Your task to perform on an android device: Open display settings Image 0: 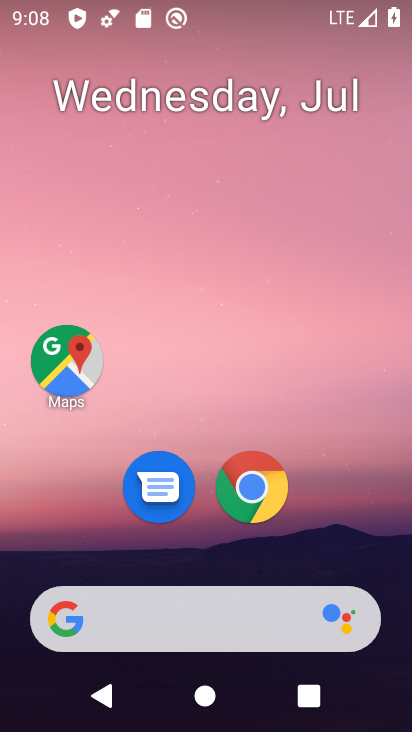
Step 0: click (402, 626)
Your task to perform on an android device: Open display settings Image 1: 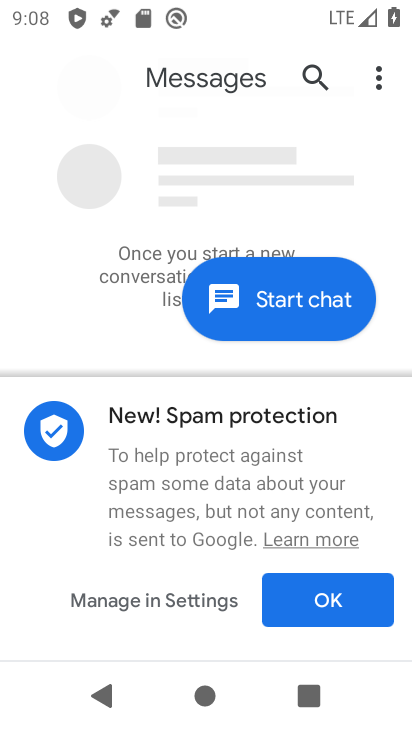
Step 1: press home button
Your task to perform on an android device: Open display settings Image 2: 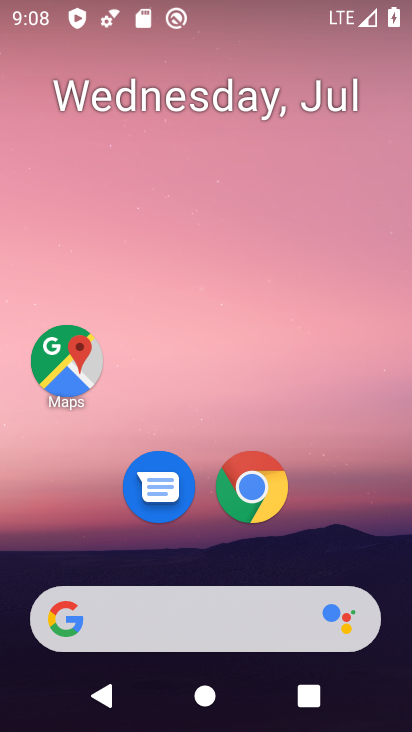
Step 2: drag from (191, 561) to (205, 39)
Your task to perform on an android device: Open display settings Image 3: 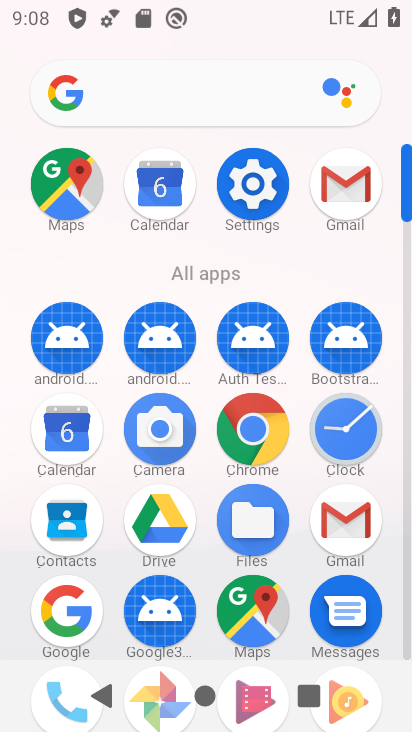
Step 3: click (250, 173)
Your task to perform on an android device: Open display settings Image 4: 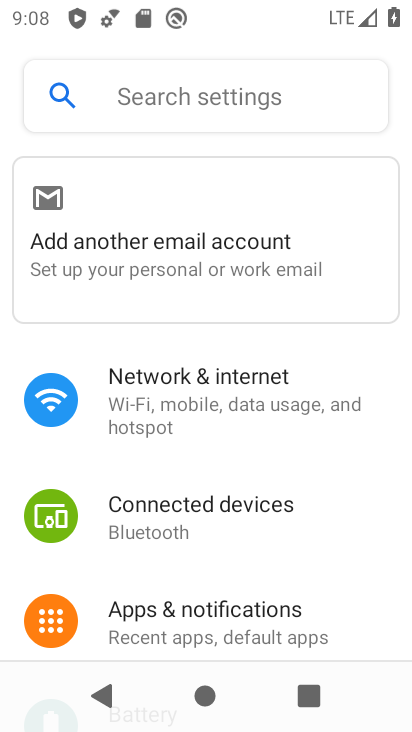
Step 4: drag from (270, 561) to (274, 189)
Your task to perform on an android device: Open display settings Image 5: 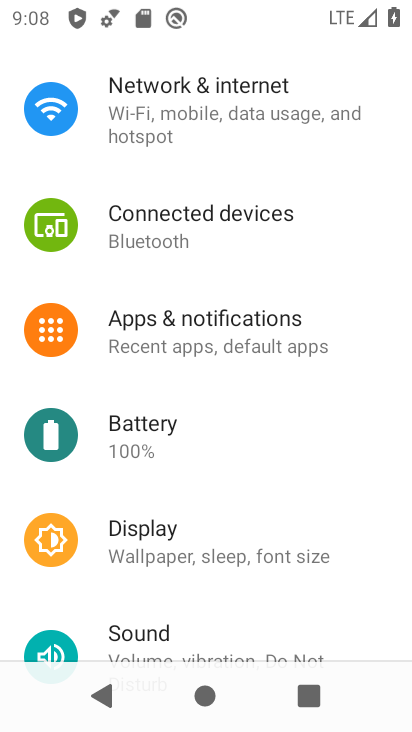
Step 5: click (155, 530)
Your task to perform on an android device: Open display settings Image 6: 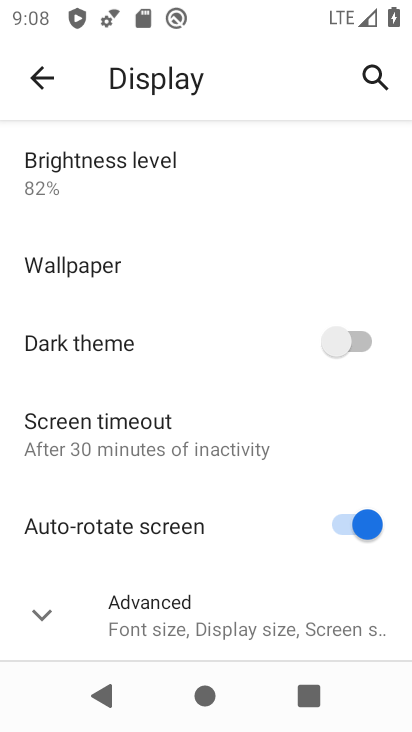
Step 6: click (149, 598)
Your task to perform on an android device: Open display settings Image 7: 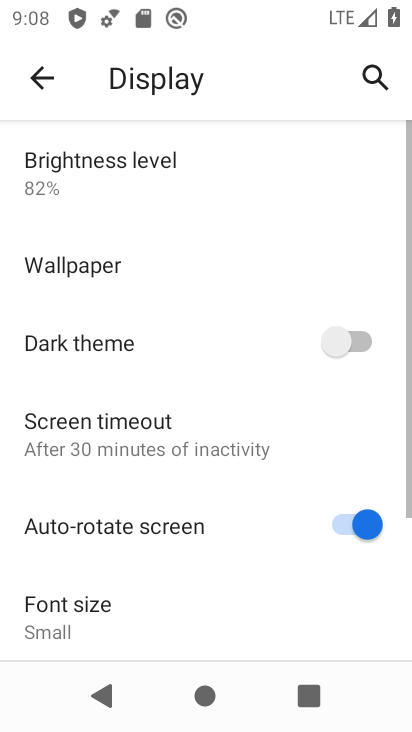
Step 7: task complete